Your task to perform on an android device: Open Chrome and go to the settings page Image 0: 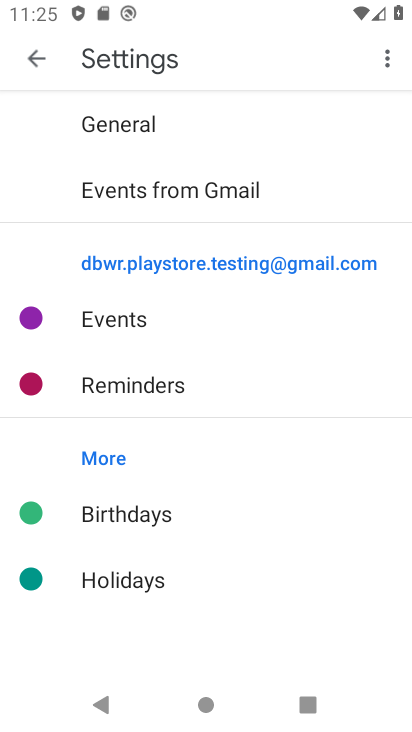
Step 0: press home button
Your task to perform on an android device: Open Chrome and go to the settings page Image 1: 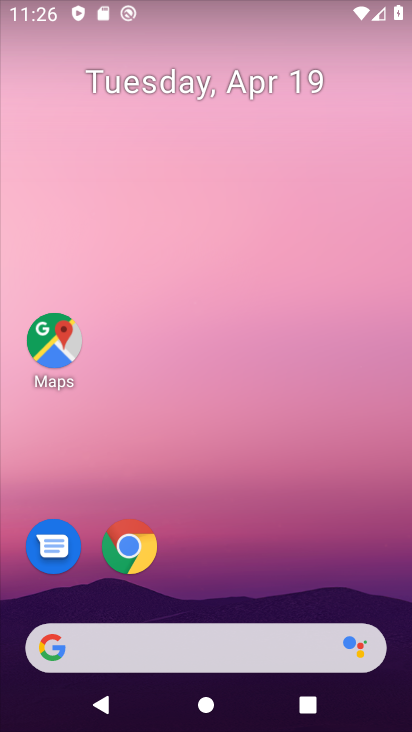
Step 1: click (123, 541)
Your task to perform on an android device: Open Chrome and go to the settings page Image 2: 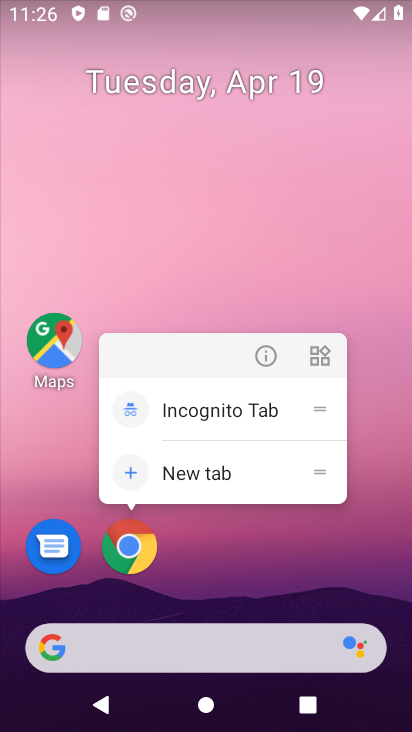
Step 2: click (192, 464)
Your task to perform on an android device: Open Chrome and go to the settings page Image 3: 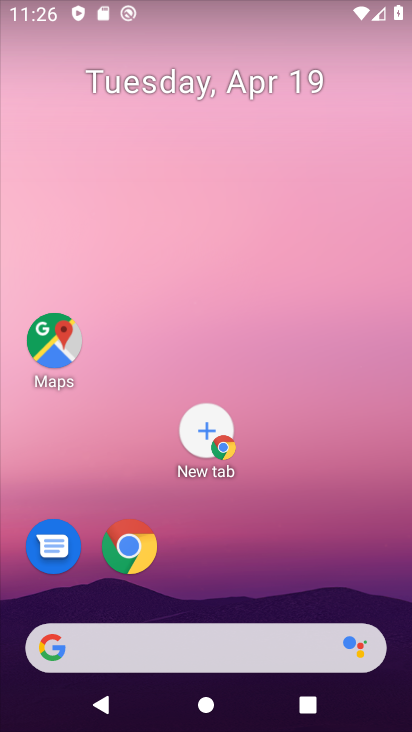
Step 3: click (118, 559)
Your task to perform on an android device: Open Chrome and go to the settings page Image 4: 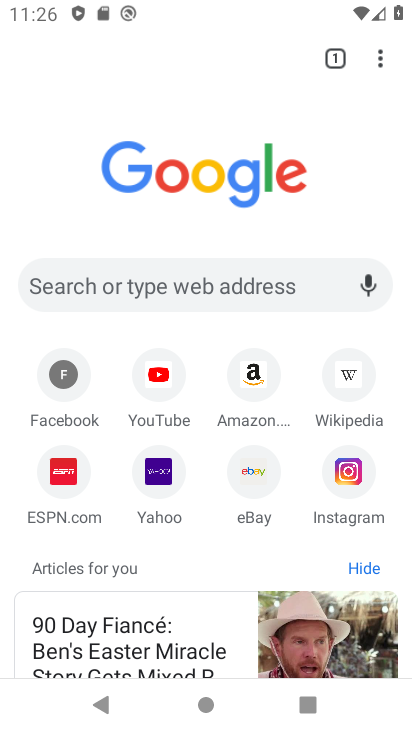
Step 4: click (378, 77)
Your task to perform on an android device: Open Chrome and go to the settings page Image 5: 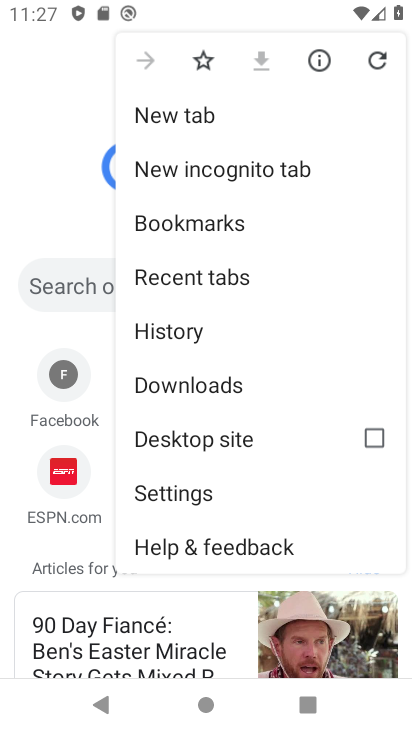
Step 5: click (191, 498)
Your task to perform on an android device: Open Chrome and go to the settings page Image 6: 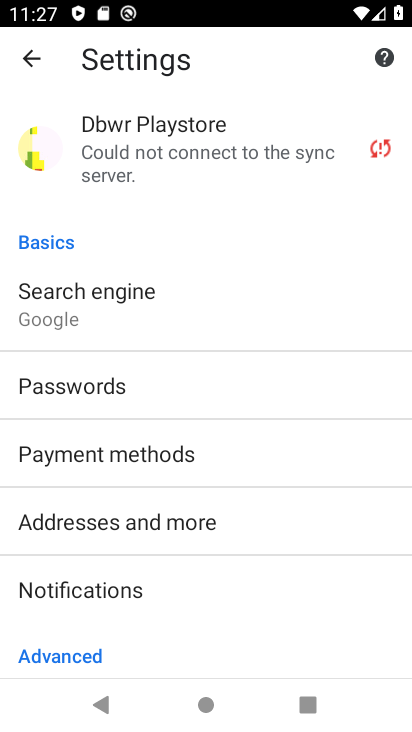
Step 6: task complete